Your task to perform on an android device: delete a single message in the gmail app Image 0: 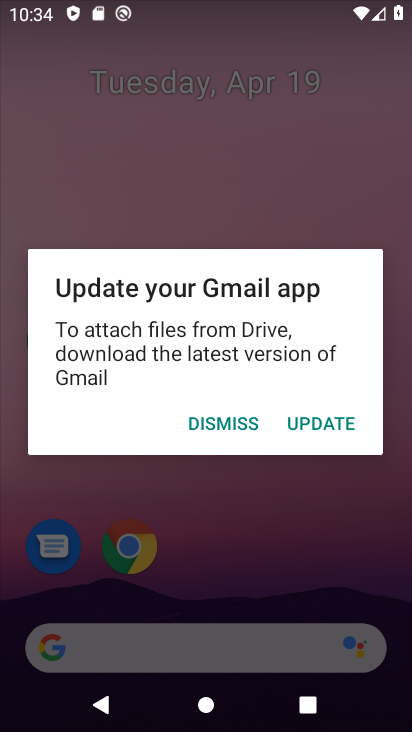
Step 0: click (218, 422)
Your task to perform on an android device: delete a single message in the gmail app Image 1: 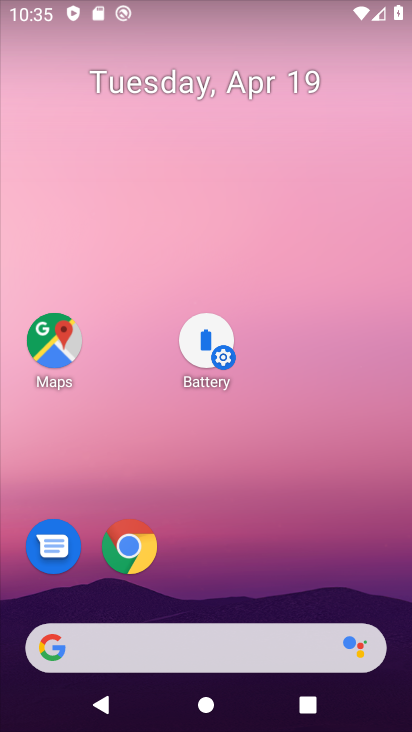
Step 1: drag from (226, 526) to (329, 108)
Your task to perform on an android device: delete a single message in the gmail app Image 2: 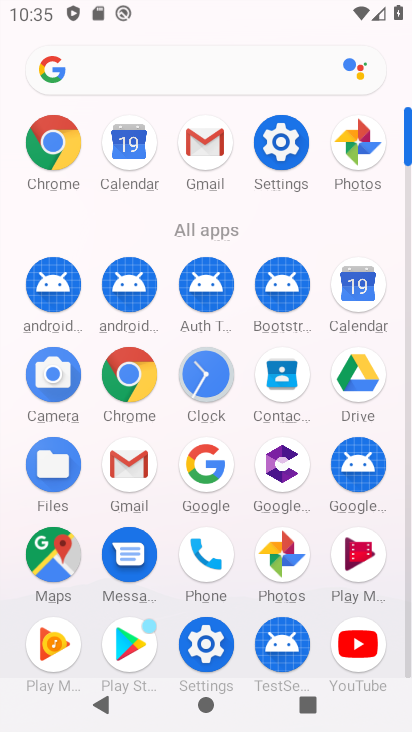
Step 2: click (135, 463)
Your task to perform on an android device: delete a single message in the gmail app Image 3: 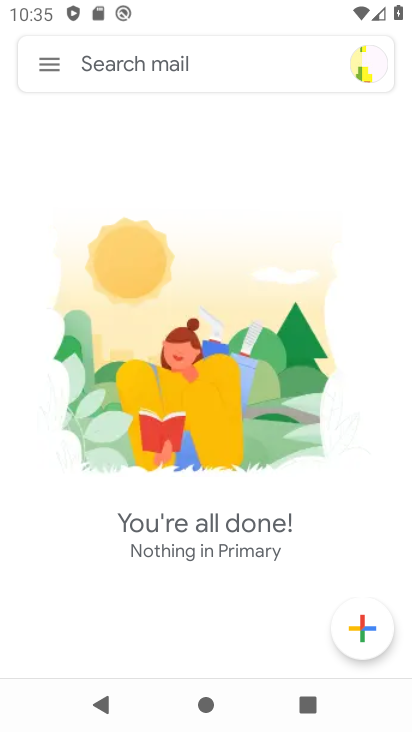
Step 3: click (47, 62)
Your task to perform on an android device: delete a single message in the gmail app Image 4: 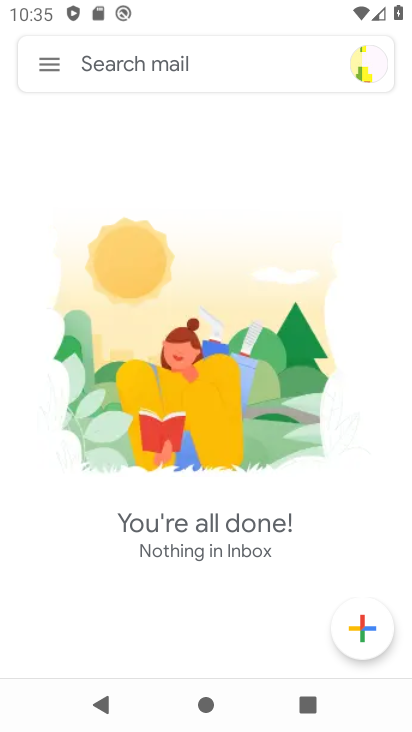
Step 4: click (47, 62)
Your task to perform on an android device: delete a single message in the gmail app Image 5: 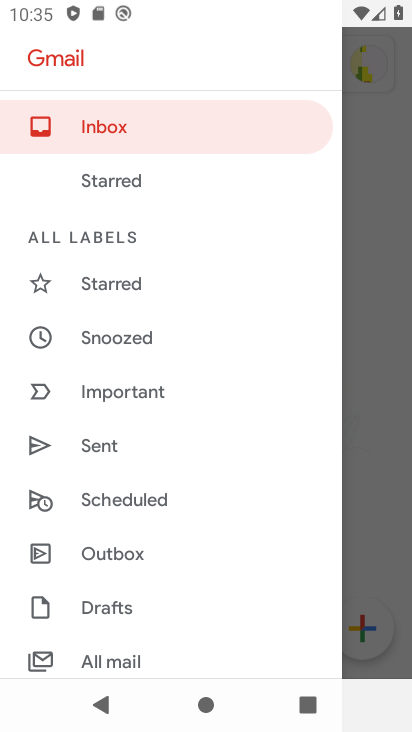
Step 5: click (142, 661)
Your task to perform on an android device: delete a single message in the gmail app Image 6: 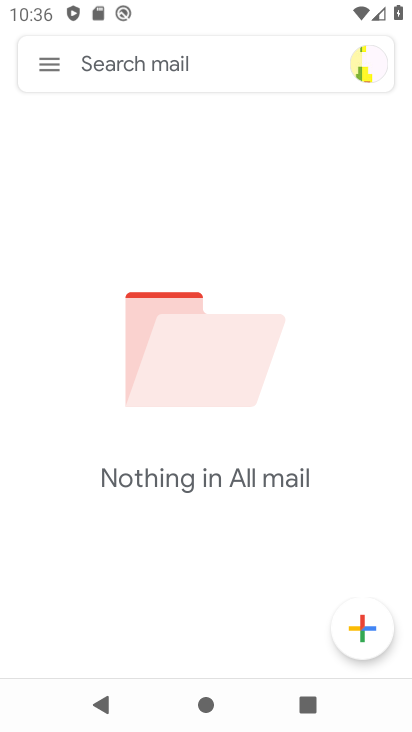
Step 6: task complete